Your task to perform on an android device: toggle wifi Image 0: 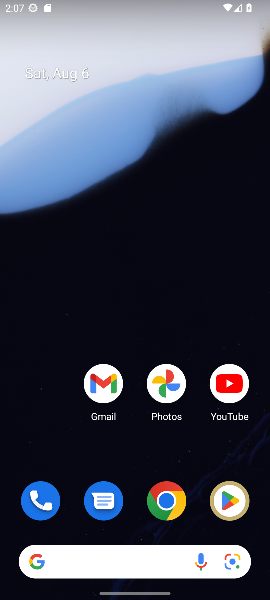
Step 0: press home button
Your task to perform on an android device: toggle wifi Image 1: 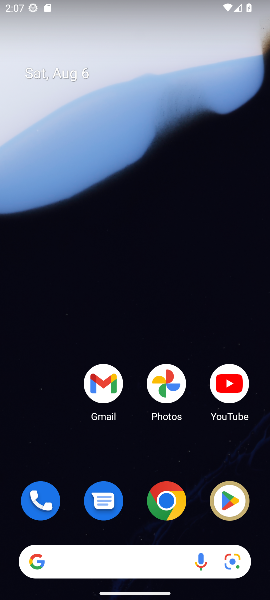
Step 1: drag from (133, 5) to (137, 441)
Your task to perform on an android device: toggle wifi Image 2: 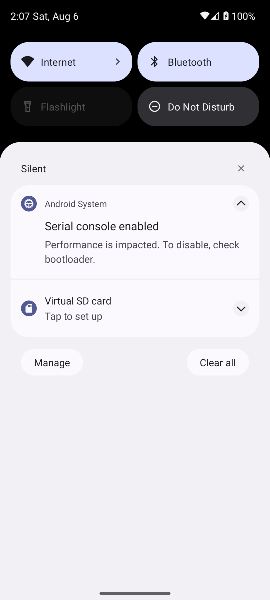
Step 2: click (71, 58)
Your task to perform on an android device: toggle wifi Image 3: 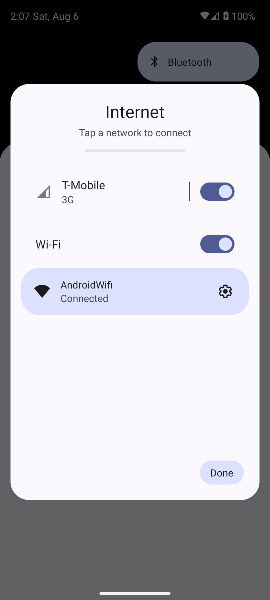
Step 3: click (227, 244)
Your task to perform on an android device: toggle wifi Image 4: 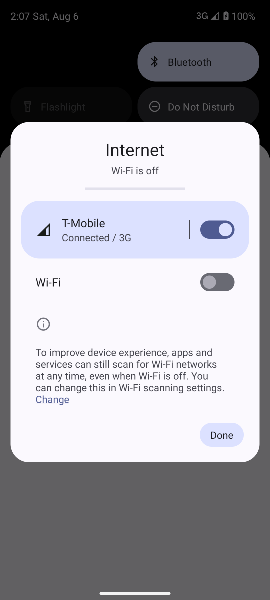
Step 4: click (218, 440)
Your task to perform on an android device: toggle wifi Image 5: 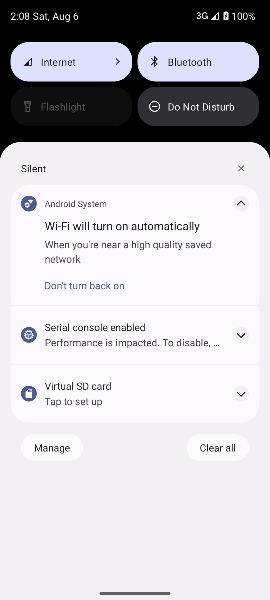
Step 5: task complete